Your task to perform on an android device: Go to battery settings Image 0: 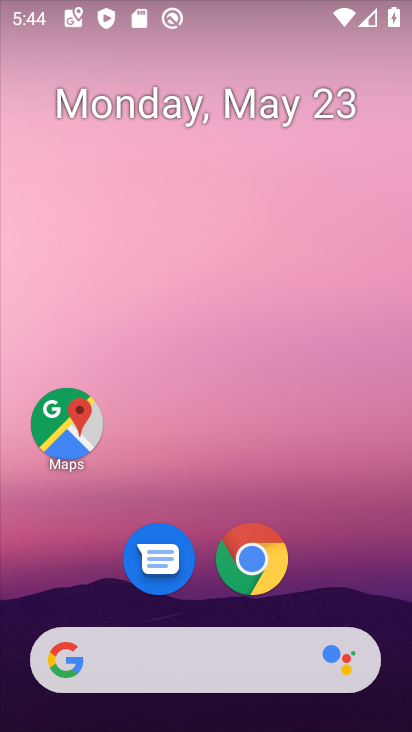
Step 0: drag from (250, 604) to (271, 10)
Your task to perform on an android device: Go to battery settings Image 1: 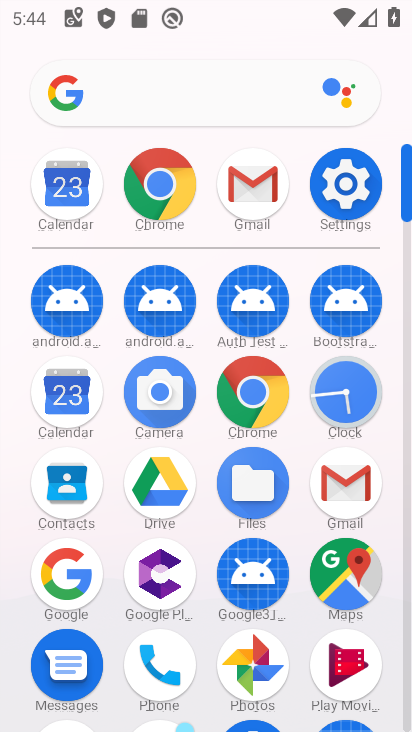
Step 1: click (331, 175)
Your task to perform on an android device: Go to battery settings Image 2: 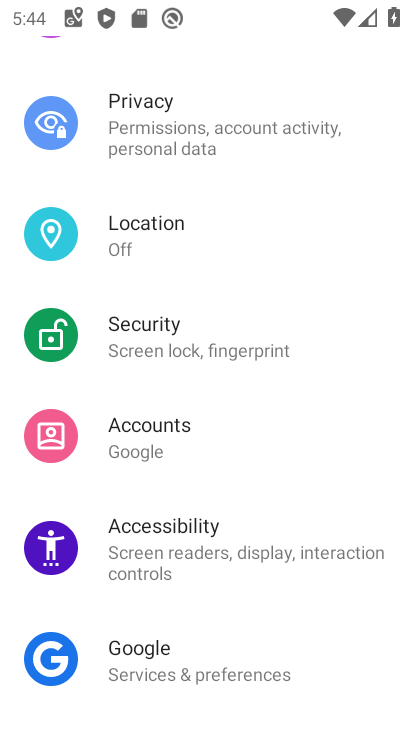
Step 2: drag from (258, 58) to (167, 727)
Your task to perform on an android device: Go to battery settings Image 3: 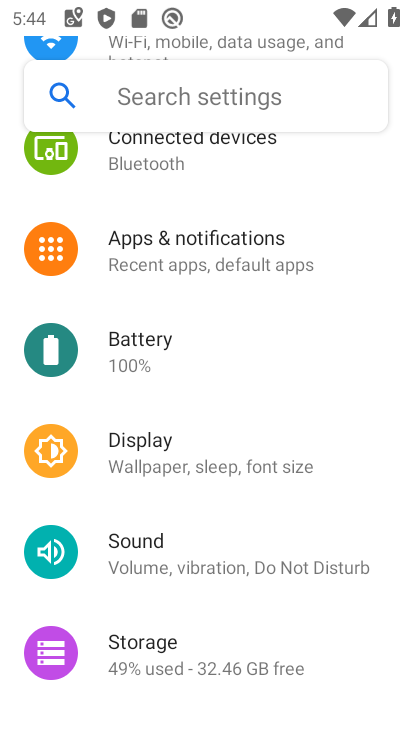
Step 3: click (163, 372)
Your task to perform on an android device: Go to battery settings Image 4: 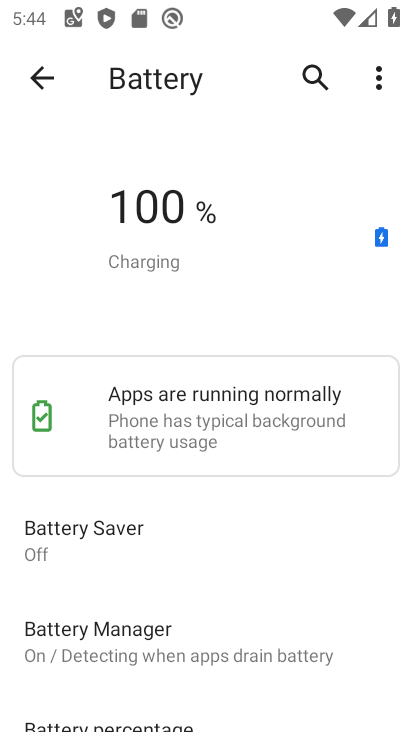
Step 4: task complete